Your task to perform on an android device: check out phone information Image 0: 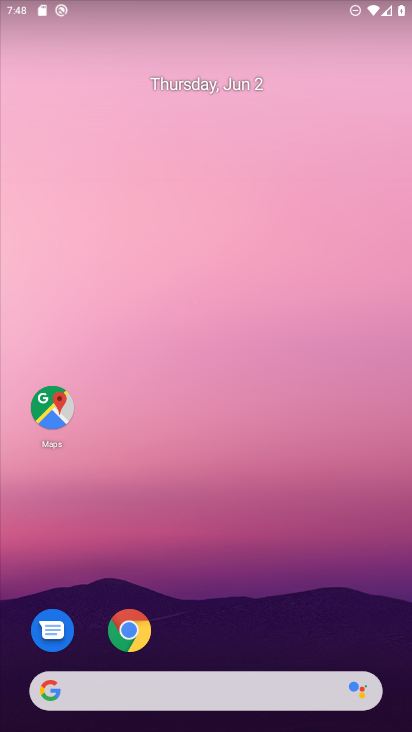
Step 0: drag from (123, 725) to (138, 15)
Your task to perform on an android device: check out phone information Image 1: 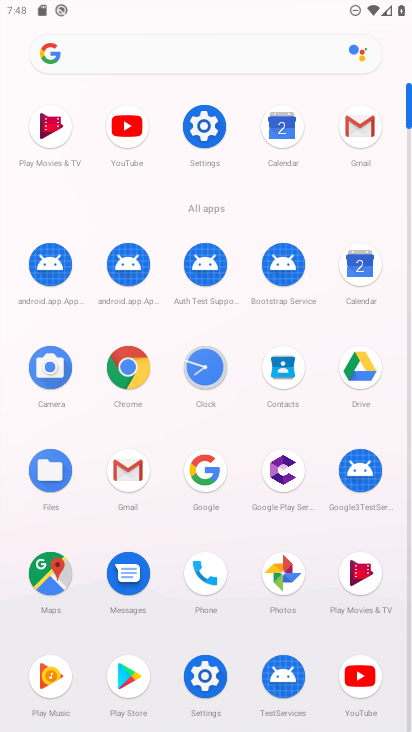
Step 1: click (201, 134)
Your task to perform on an android device: check out phone information Image 2: 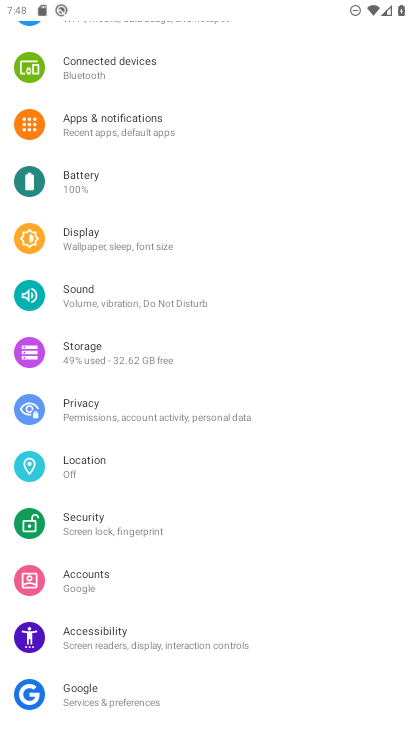
Step 2: drag from (257, 696) to (276, 190)
Your task to perform on an android device: check out phone information Image 3: 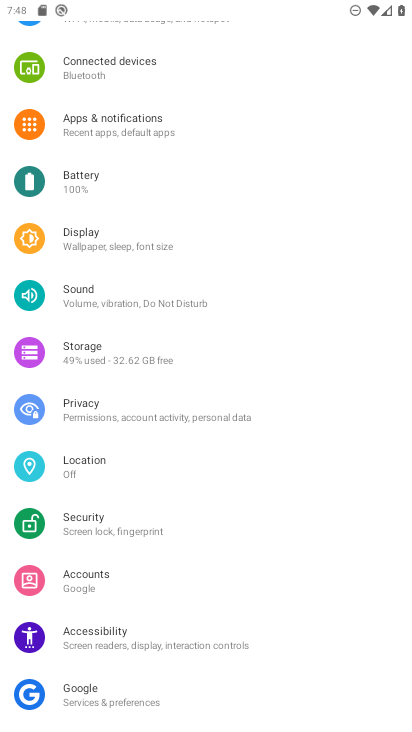
Step 3: drag from (158, 700) to (139, 245)
Your task to perform on an android device: check out phone information Image 4: 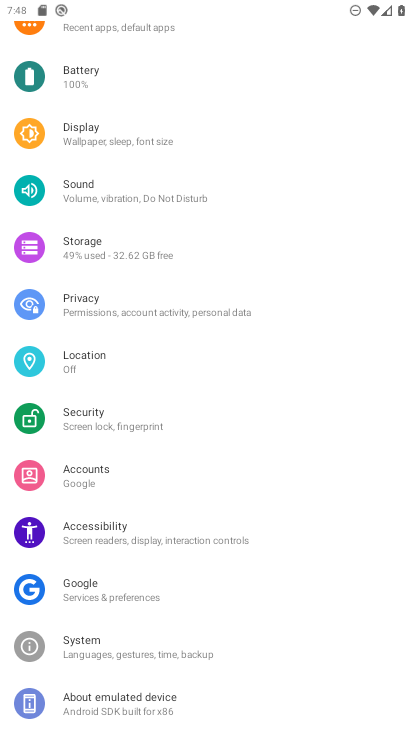
Step 4: click (89, 704)
Your task to perform on an android device: check out phone information Image 5: 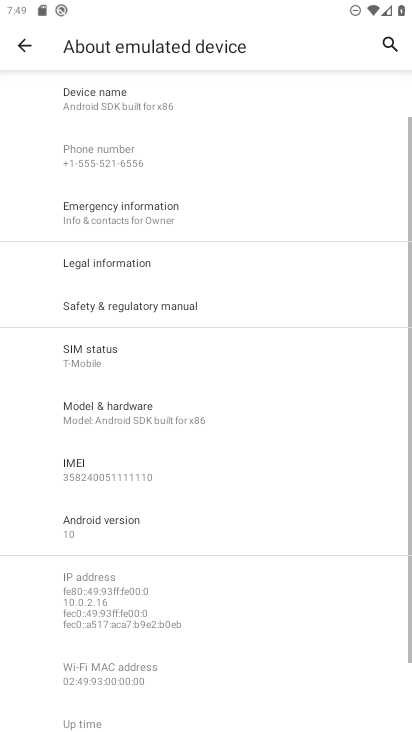
Step 5: task complete